Your task to perform on an android device: Show me productivity apps on the Play Store Image 0: 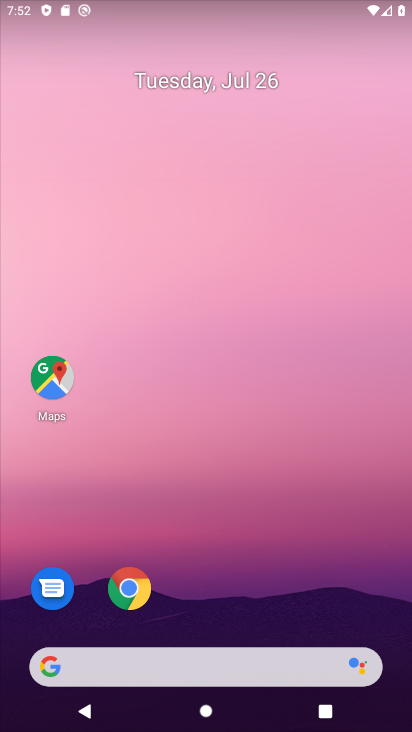
Step 0: drag from (313, 587) to (226, 91)
Your task to perform on an android device: Show me productivity apps on the Play Store Image 1: 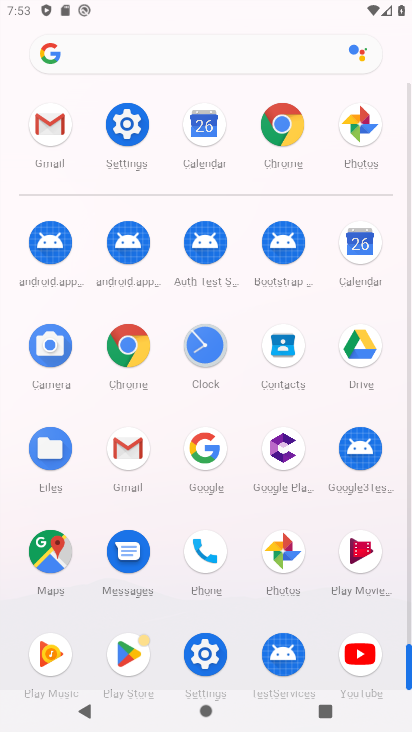
Step 1: drag from (234, 535) to (268, 194)
Your task to perform on an android device: Show me productivity apps on the Play Store Image 2: 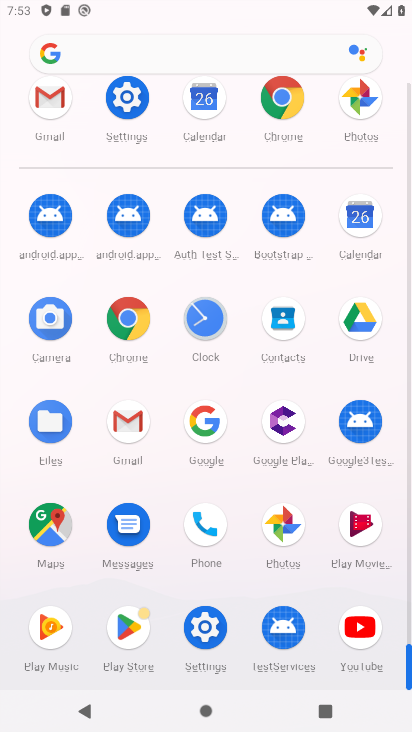
Step 2: drag from (246, 210) to (233, 292)
Your task to perform on an android device: Show me productivity apps on the Play Store Image 3: 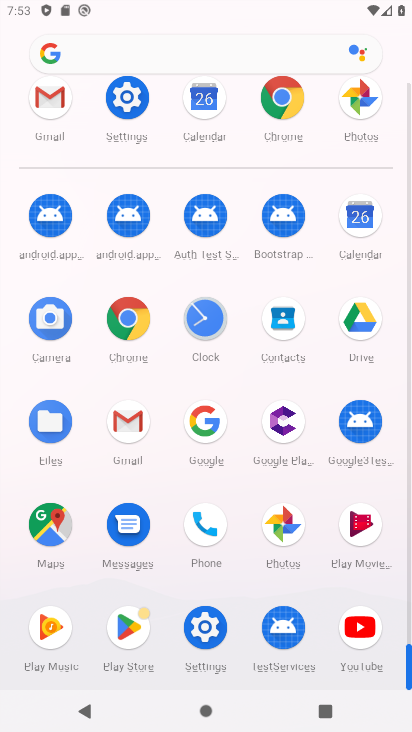
Step 3: click (130, 625)
Your task to perform on an android device: Show me productivity apps on the Play Store Image 4: 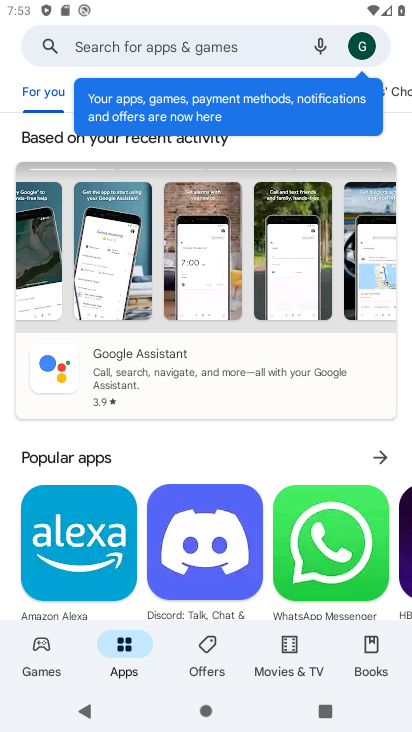
Step 4: task complete